Your task to perform on an android device: turn smart compose on in the gmail app Image 0: 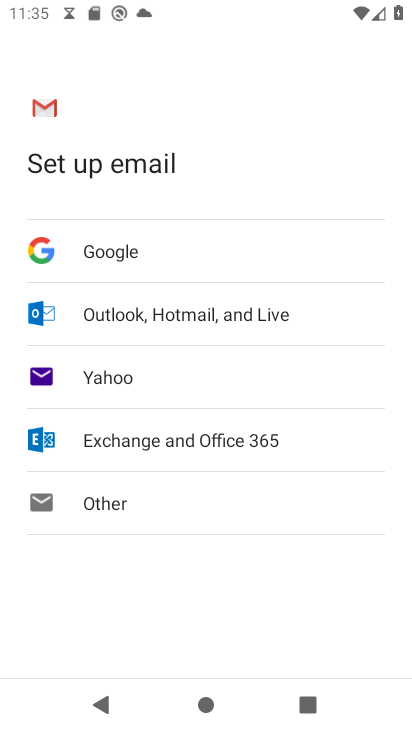
Step 0: press home button
Your task to perform on an android device: turn smart compose on in the gmail app Image 1: 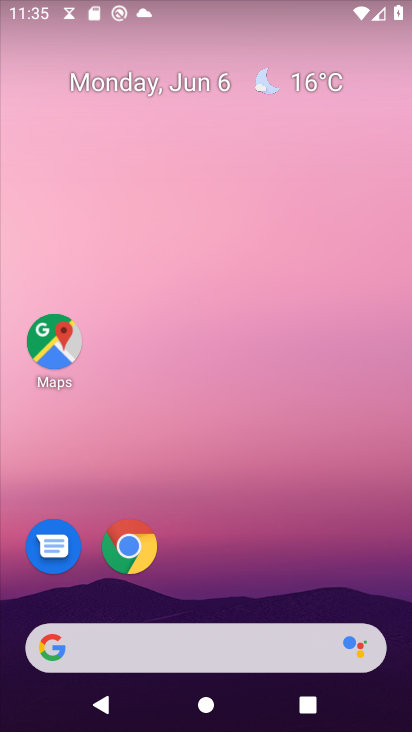
Step 1: drag from (206, 485) to (270, 117)
Your task to perform on an android device: turn smart compose on in the gmail app Image 2: 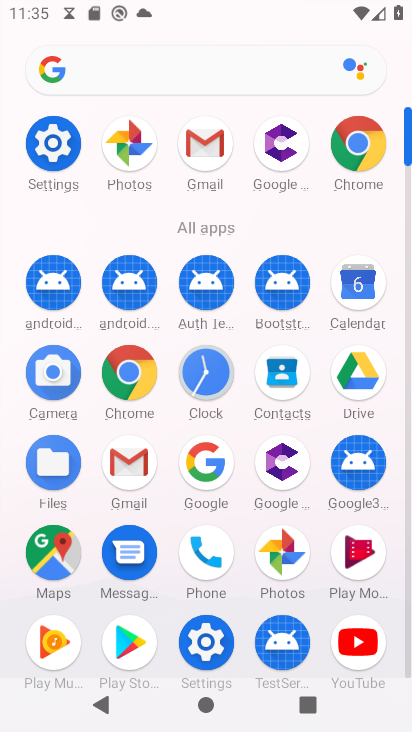
Step 2: click (118, 458)
Your task to perform on an android device: turn smart compose on in the gmail app Image 3: 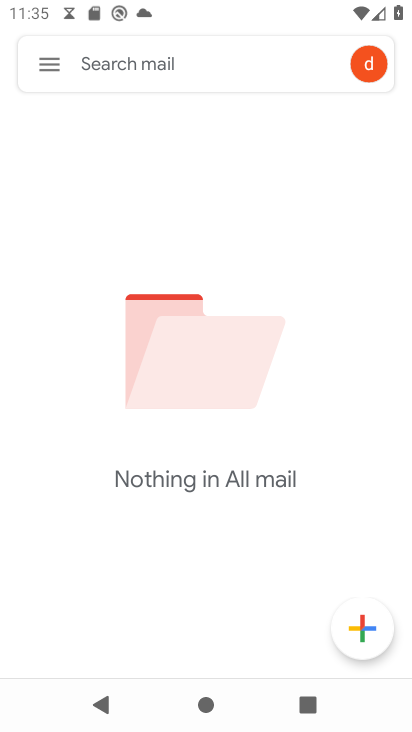
Step 3: click (45, 58)
Your task to perform on an android device: turn smart compose on in the gmail app Image 4: 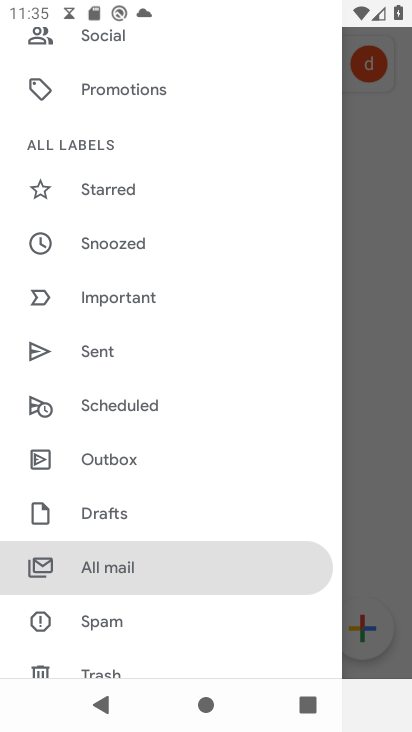
Step 4: drag from (136, 597) to (174, 307)
Your task to perform on an android device: turn smart compose on in the gmail app Image 5: 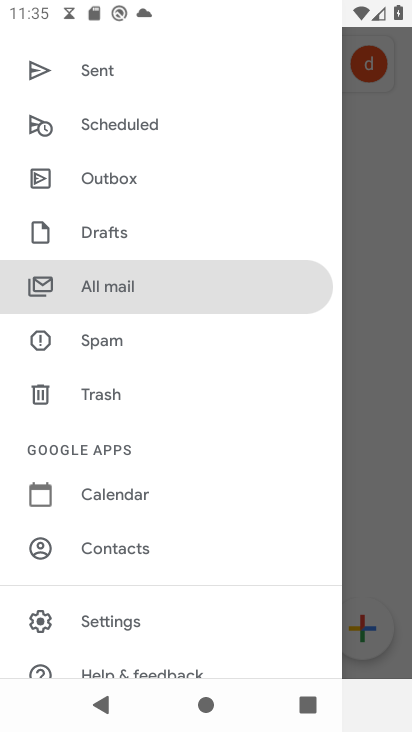
Step 5: click (113, 618)
Your task to perform on an android device: turn smart compose on in the gmail app Image 6: 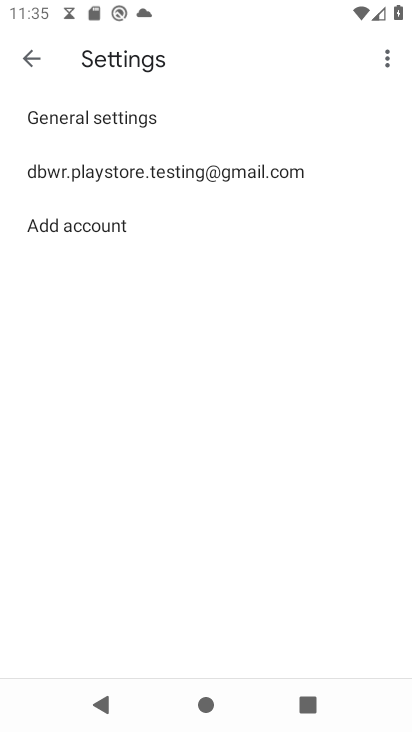
Step 6: click (132, 170)
Your task to perform on an android device: turn smart compose on in the gmail app Image 7: 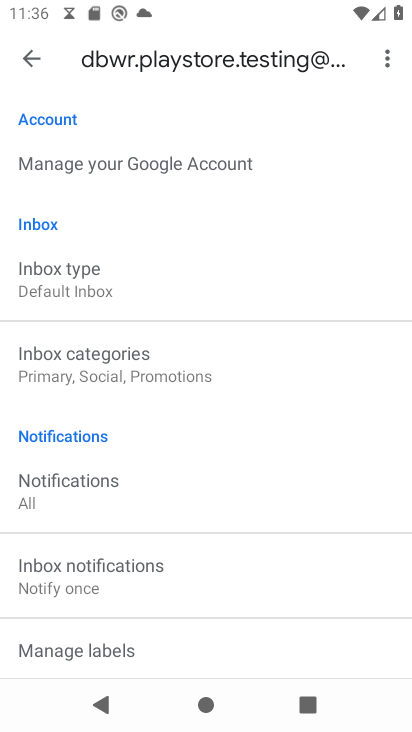
Step 7: task complete